Your task to perform on an android device: turn off location Image 0: 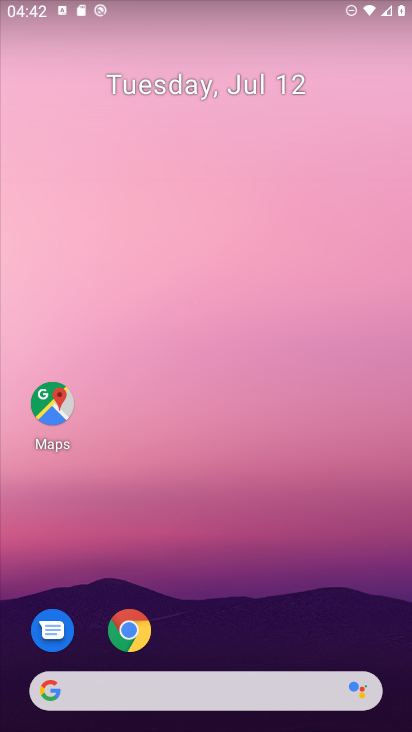
Step 0: drag from (326, 622) to (299, 114)
Your task to perform on an android device: turn off location Image 1: 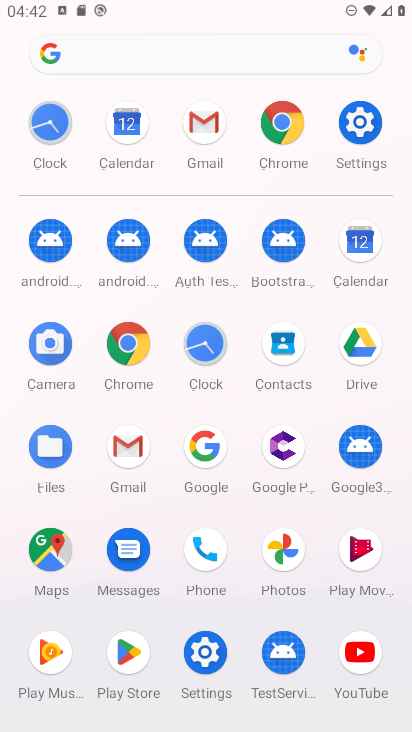
Step 1: click (203, 652)
Your task to perform on an android device: turn off location Image 2: 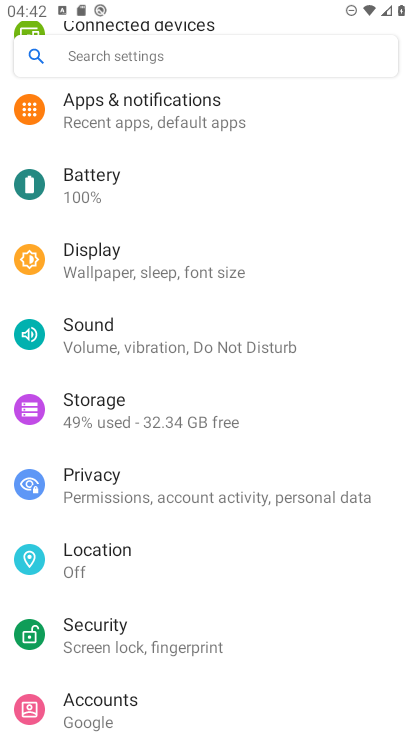
Step 2: click (78, 557)
Your task to perform on an android device: turn off location Image 3: 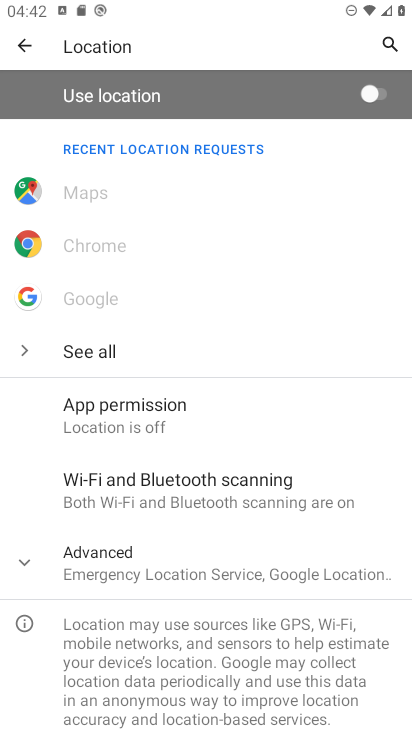
Step 3: task complete